Your task to perform on an android device: check google app version Image 0: 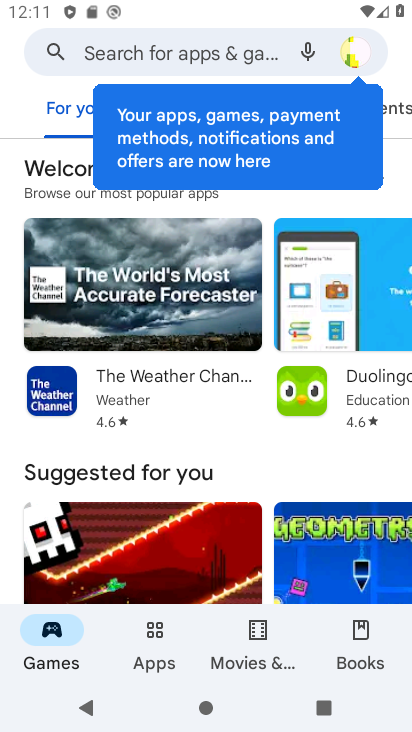
Step 0: press home button
Your task to perform on an android device: check google app version Image 1: 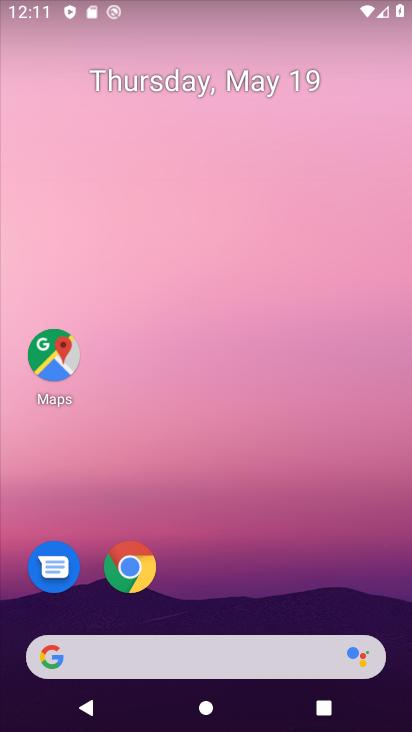
Step 1: click (141, 652)
Your task to perform on an android device: check google app version Image 2: 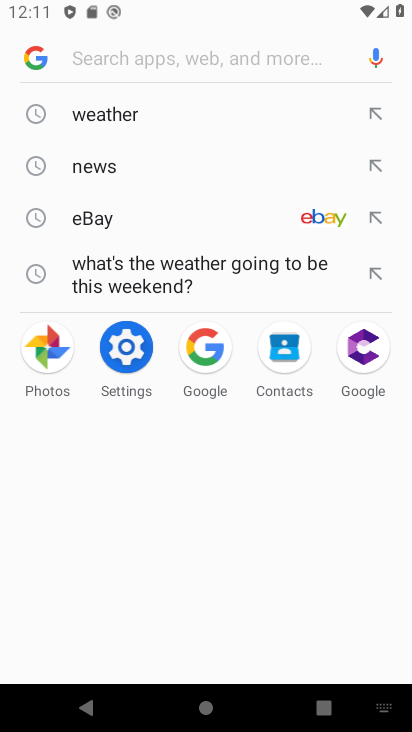
Step 2: click (41, 63)
Your task to perform on an android device: check google app version Image 3: 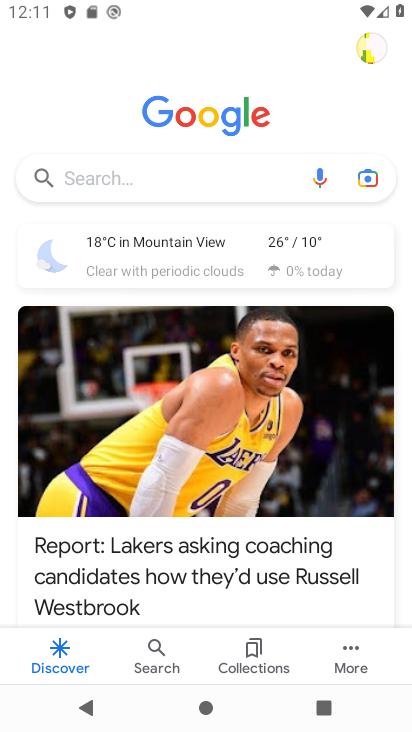
Step 3: click (357, 648)
Your task to perform on an android device: check google app version Image 4: 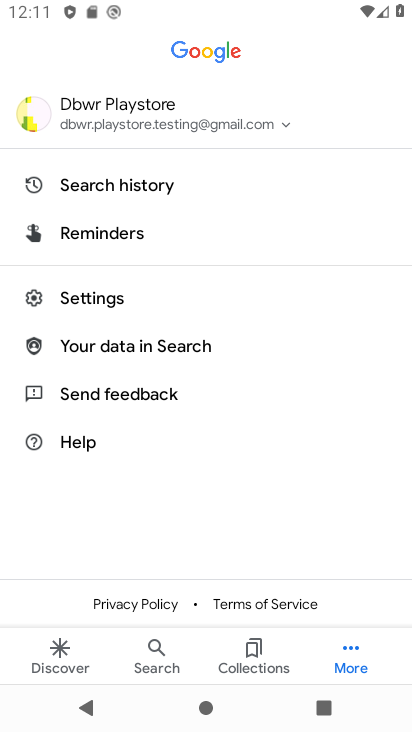
Step 4: click (132, 288)
Your task to perform on an android device: check google app version Image 5: 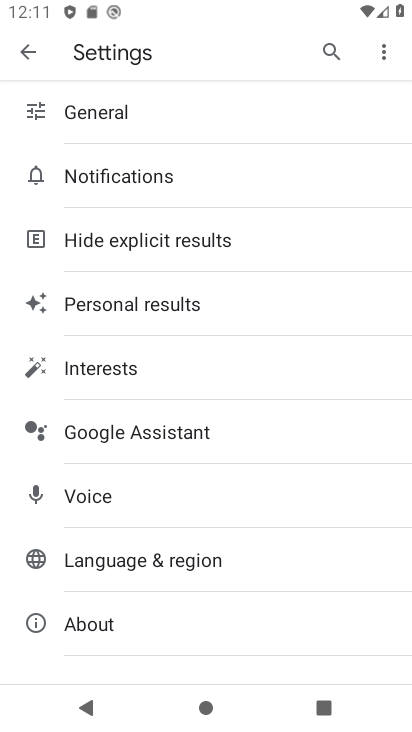
Step 5: click (100, 613)
Your task to perform on an android device: check google app version Image 6: 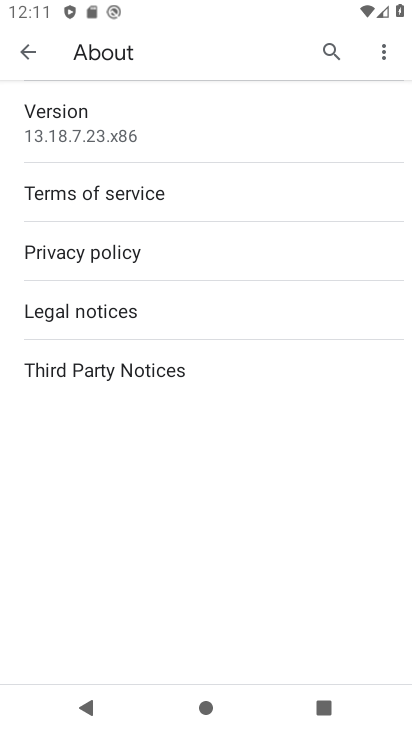
Step 6: task complete